Your task to perform on an android device: Open the web browser Image 0: 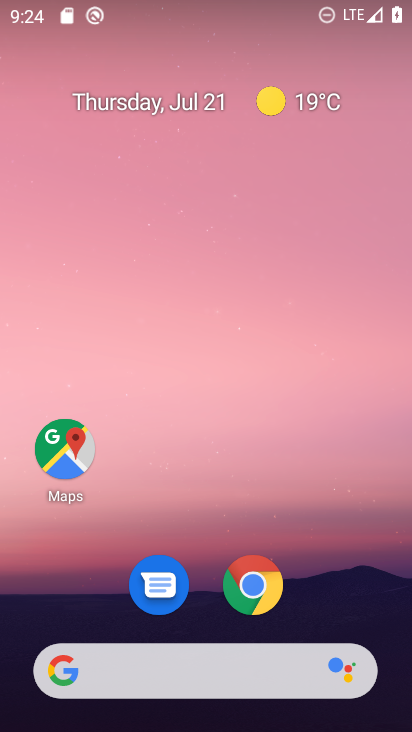
Step 0: click (216, 670)
Your task to perform on an android device: Open the web browser Image 1: 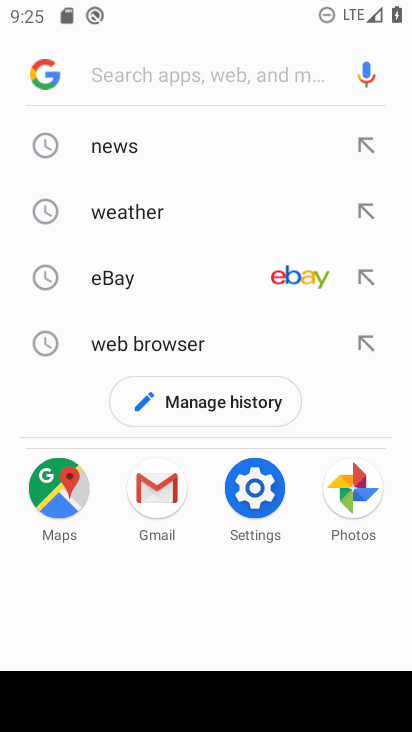
Step 1: task complete